Your task to perform on an android device: change the clock display to show seconds Image 0: 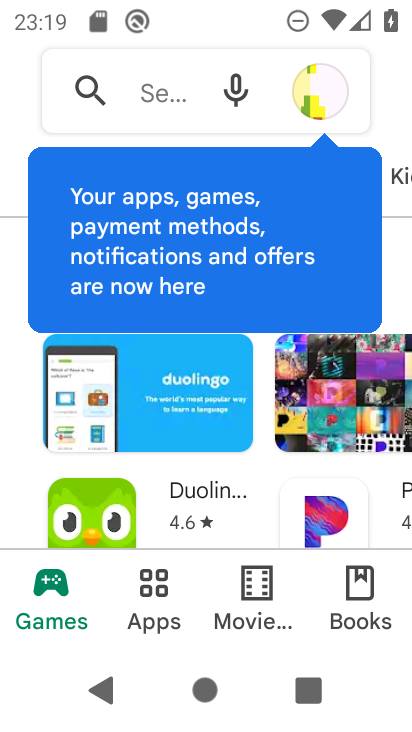
Step 0: drag from (247, 518) to (268, 123)
Your task to perform on an android device: change the clock display to show seconds Image 1: 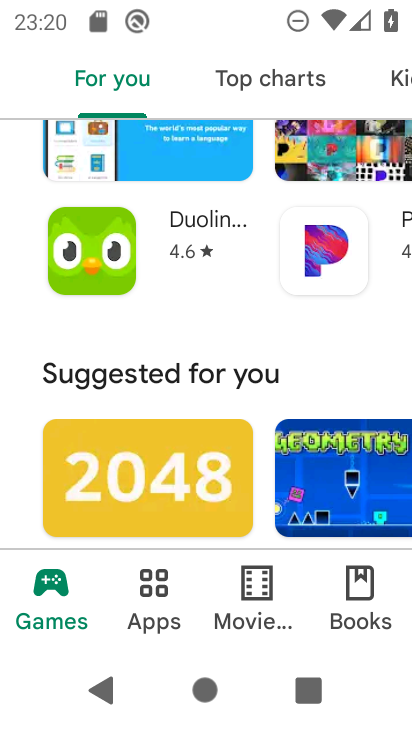
Step 1: drag from (265, 199) to (284, 436)
Your task to perform on an android device: change the clock display to show seconds Image 2: 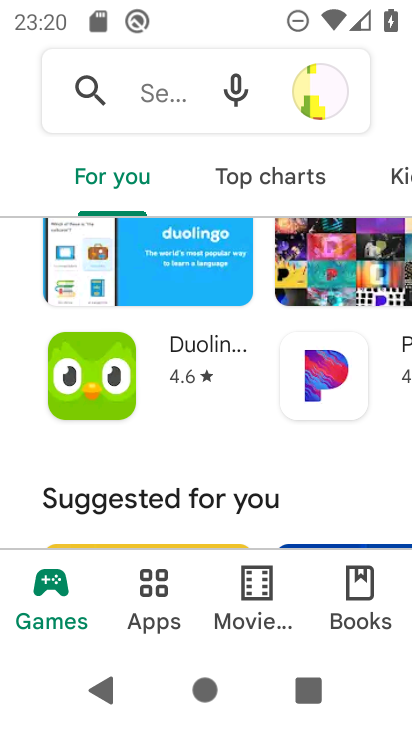
Step 2: press home button
Your task to perform on an android device: change the clock display to show seconds Image 3: 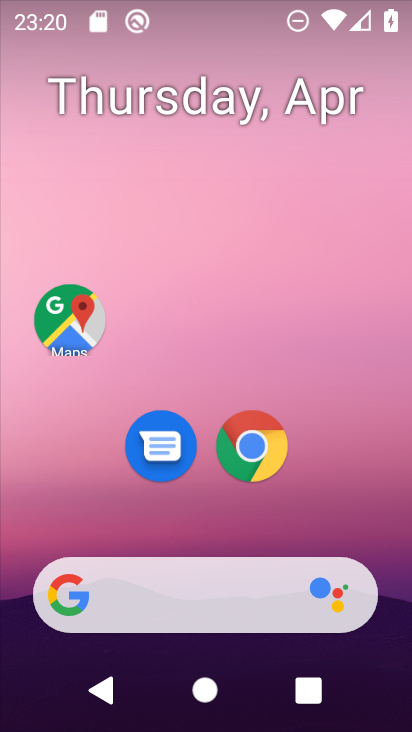
Step 3: drag from (188, 549) to (184, 24)
Your task to perform on an android device: change the clock display to show seconds Image 4: 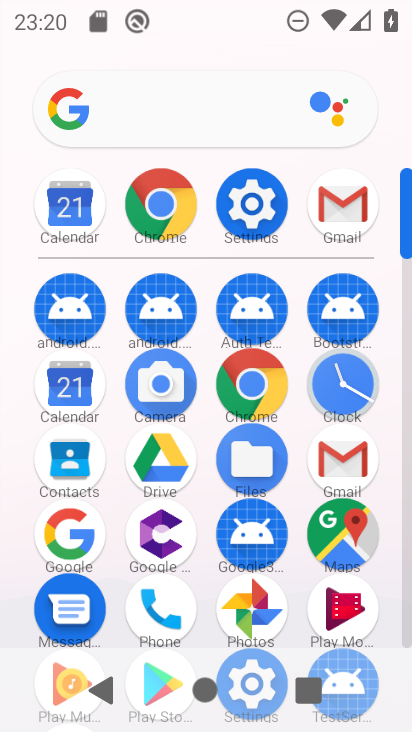
Step 4: drag from (198, 611) to (195, 227)
Your task to perform on an android device: change the clock display to show seconds Image 5: 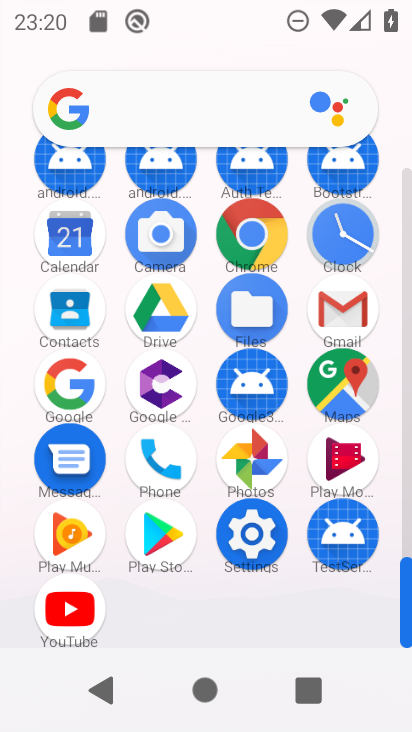
Step 5: click (337, 219)
Your task to perform on an android device: change the clock display to show seconds Image 6: 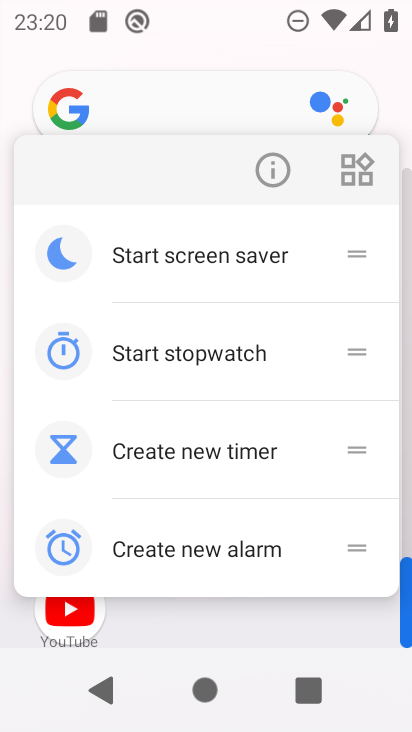
Step 6: click (274, 171)
Your task to perform on an android device: change the clock display to show seconds Image 7: 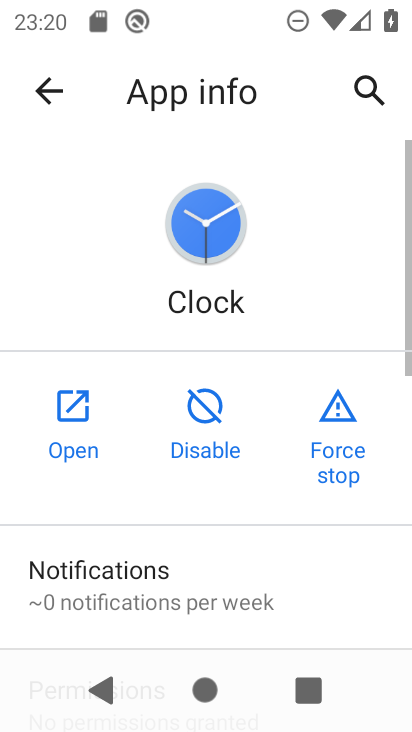
Step 7: click (46, 416)
Your task to perform on an android device: change the clock display to show seconds Image 8: 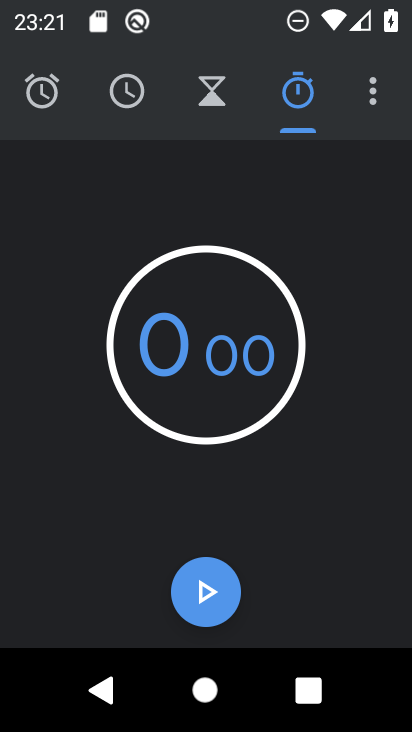
Step 8: drag from (369, 85) to (285, 178)
Your task to perform on an android device: change the clock display to show seconds Image 9: 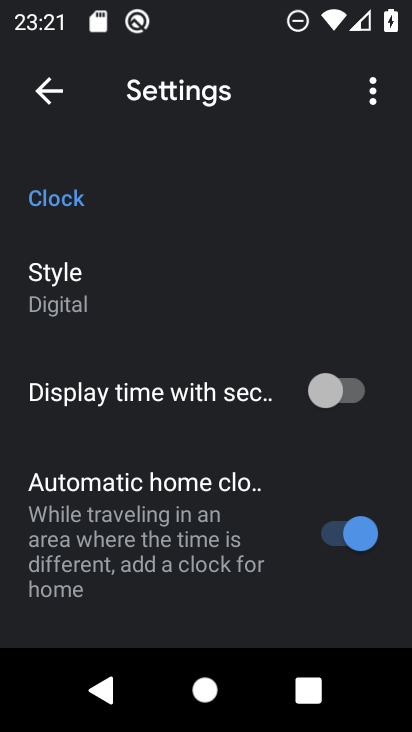
Step 9: click (243, 394)
Your task to perform on an android device: change the clock display to show seconds Image 10: 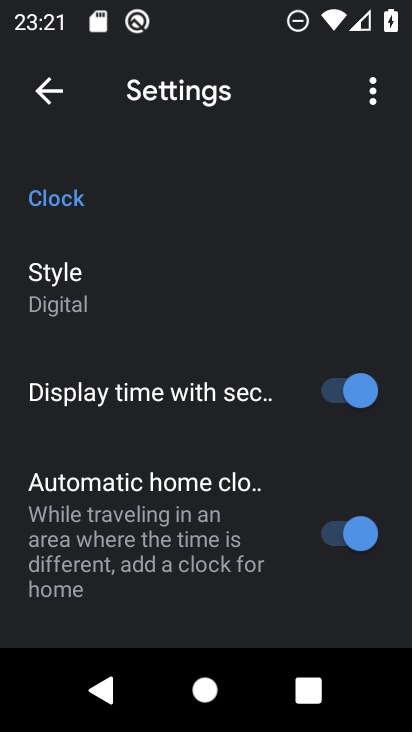
Step 10: task complete